Your task to perform on an android device: Open battery settings Image 0: 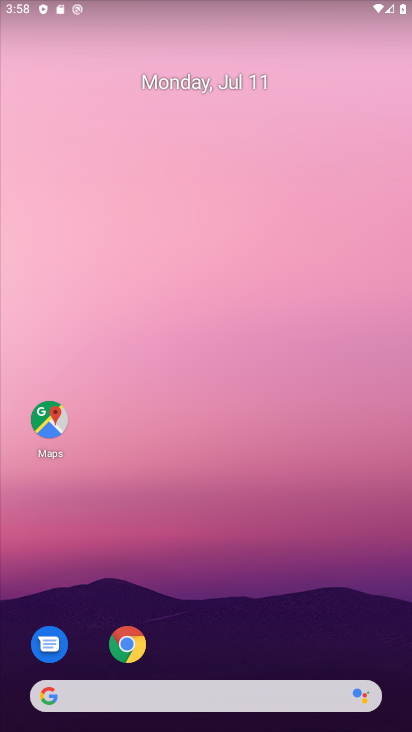
Step 0: drag from (195, 636) to (134, 119)
Your task to perform on an android device: Open battery settings Image 1: 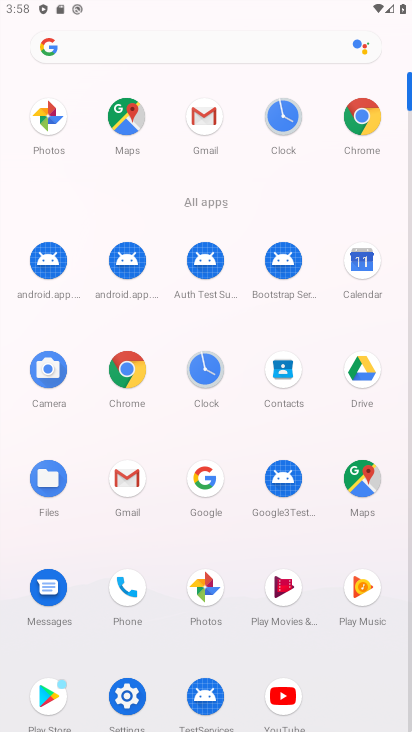
Step 1: click (116, 701)
Your task to perform on an android device: Open battery settings Image 2: 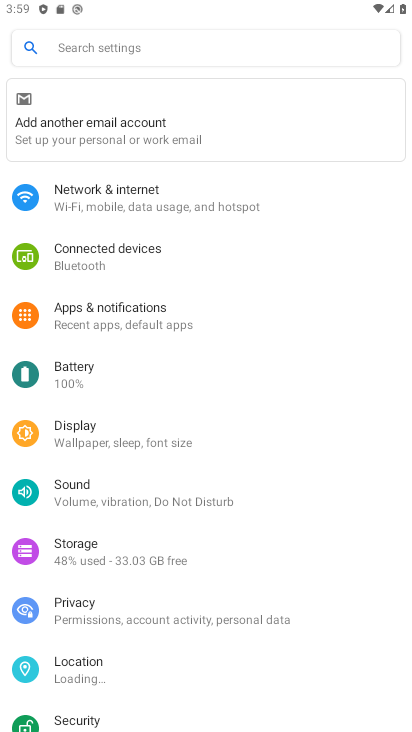
Step 2: click (101, 381)
Your task to perform on an android device: Open battery settings Image 3: 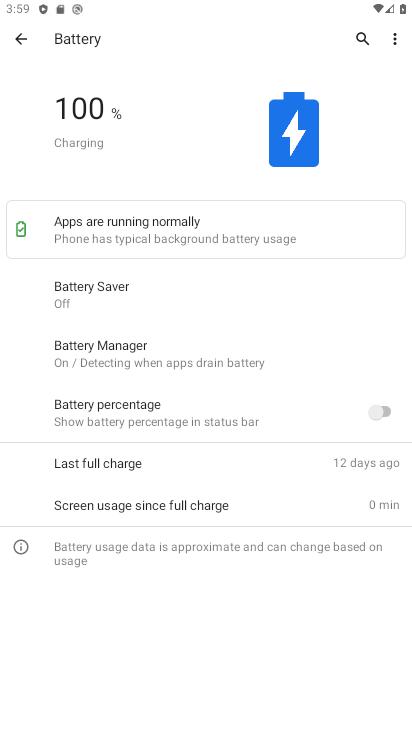
Step 3: task complete